Your task to perform on an android device: Open location settings Image 0: 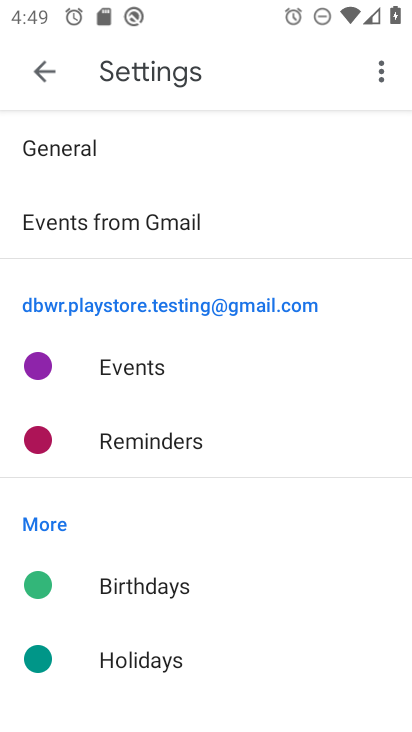
Step 0: press home button
Your task to perform on an android device: Open location settings Image 1: 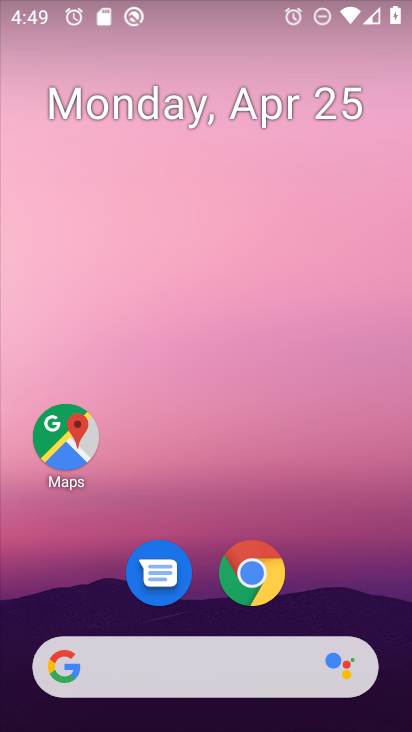
Step 1: drag from (366, 604) to (411, 16)
Your task to perform on an android device: Open location settings Image 2: 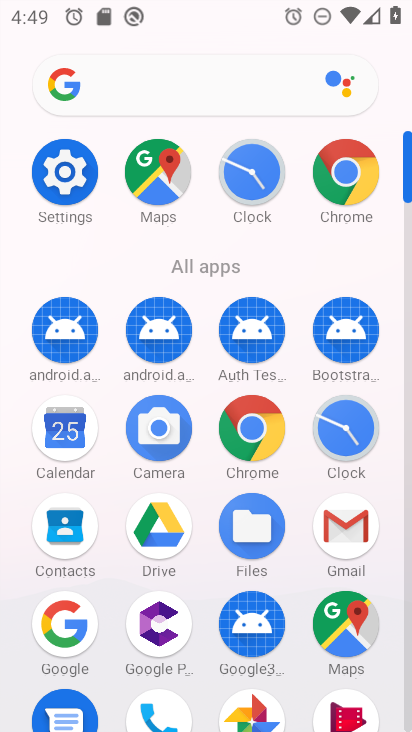
Step 2: click (65, 176)
Your task to perform on an android device: Open location settings Image 3: 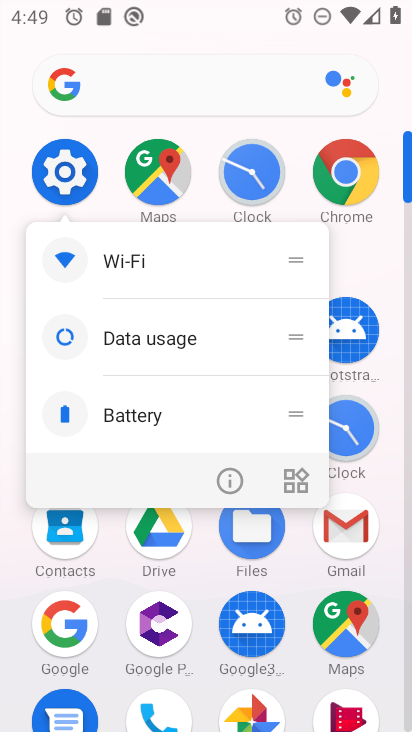
Step 3: click (68, 175)
Your task to perform on an android device: Open location settings Image 4: 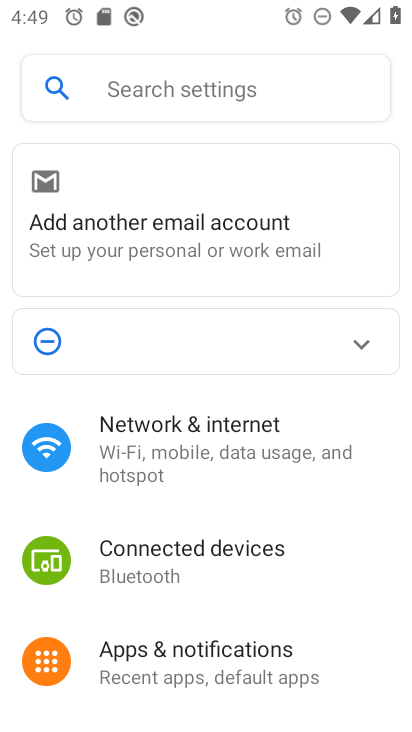
Step 4: drag from (299, 656) to (347, 122)
Your task to perform on an android device: Open location settings Image 5: 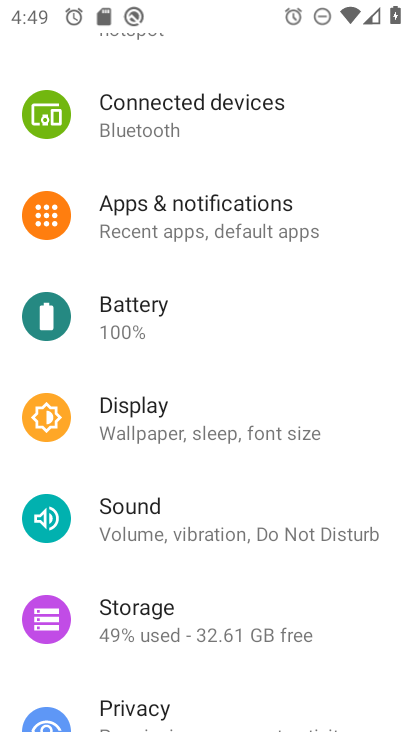
Step 5: drag from (289, 558) to (289, 166)
Your task to perform on an android device: Open location settings Image 6: 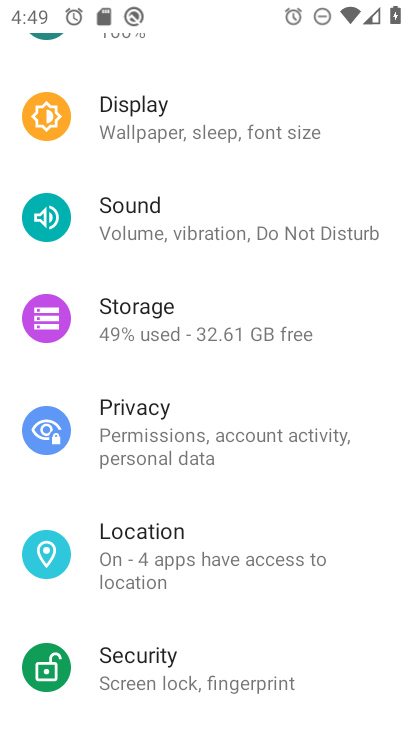
Step 6: click (120, 546)
Your task to perform on an android device: Open location settings Image 7: 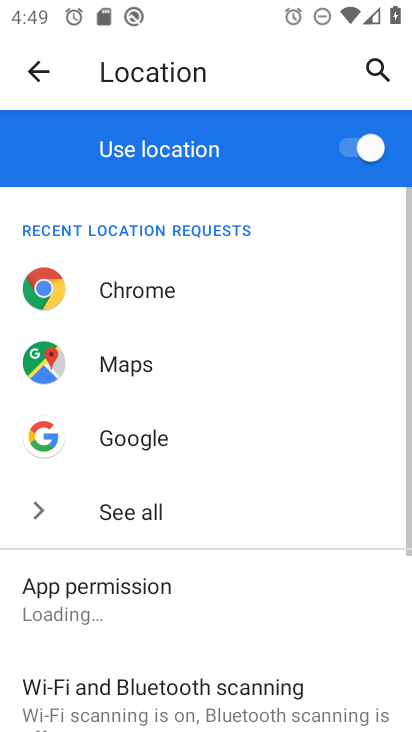
Step 7: task complete